Your task to perform on an android device: What's the weather today? Image 0: 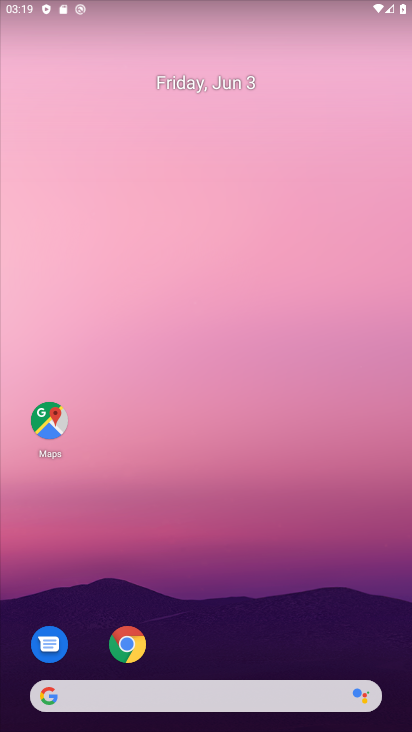
Step 0: drag from (298, 616) to (291, 171)
Your task to perform on an android device: What's the weather today? Image 1: 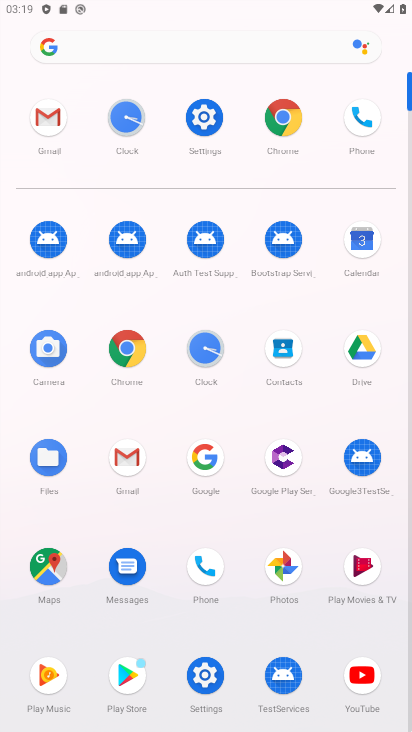
Step 1: click (126, 351)
Your task to perform on an android device: What's the weather today? Image 2: 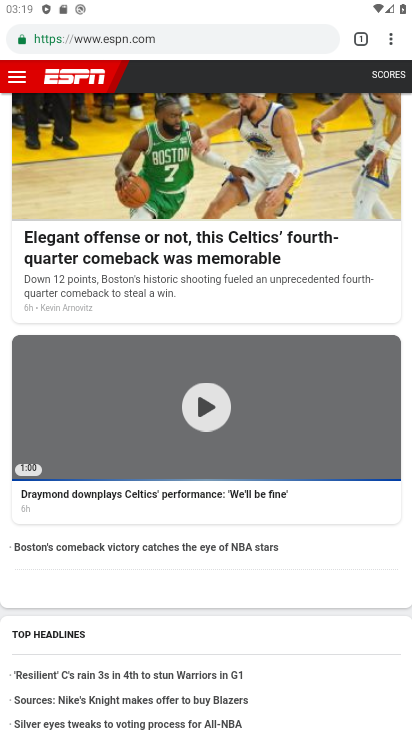
Step 2: click (237, 36)
Your task to perform on an android device: What's the weather today? Image 3: 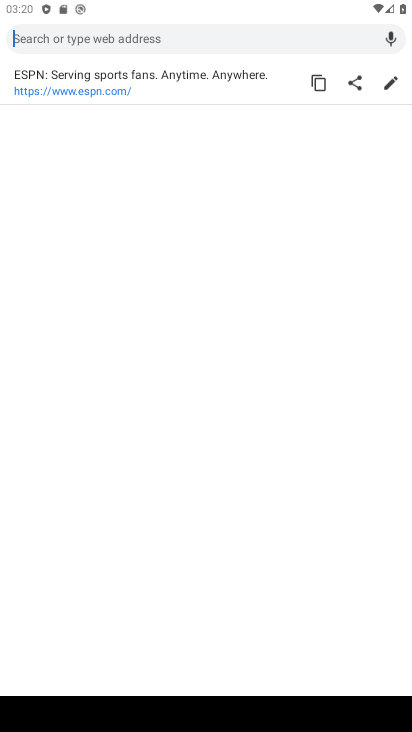
Step 3: type "What's the weather today?"
Your task to perform on an android device: What's the weather today? Image 4: 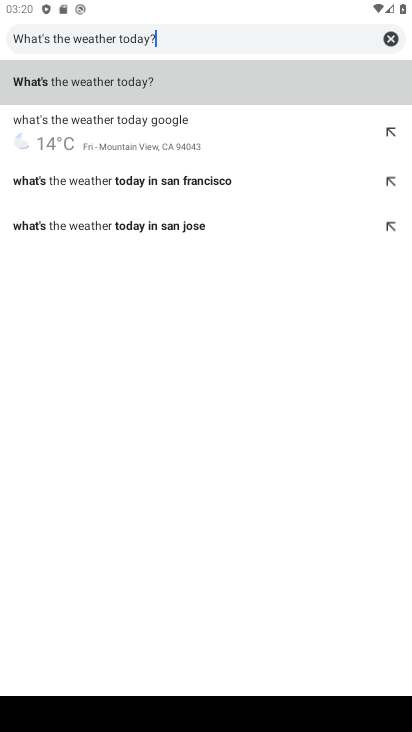
Step 4: click (70, 77)
Your task to perform on an android device: What's the weather today? Image 5: 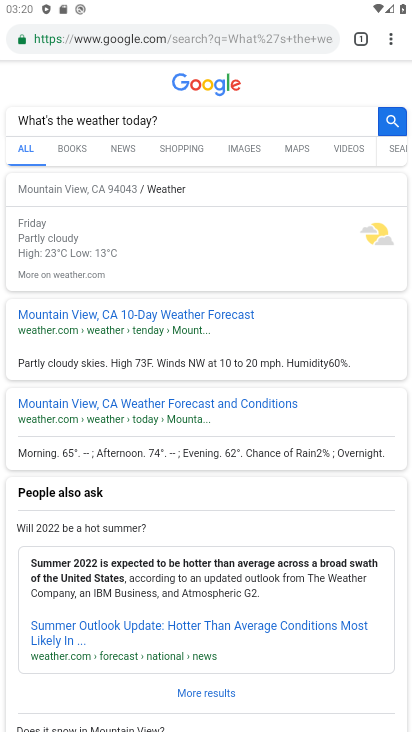
Step 5: task complete